Your task to perform on an android device: Open Chrome and go to the settings page Image 0: 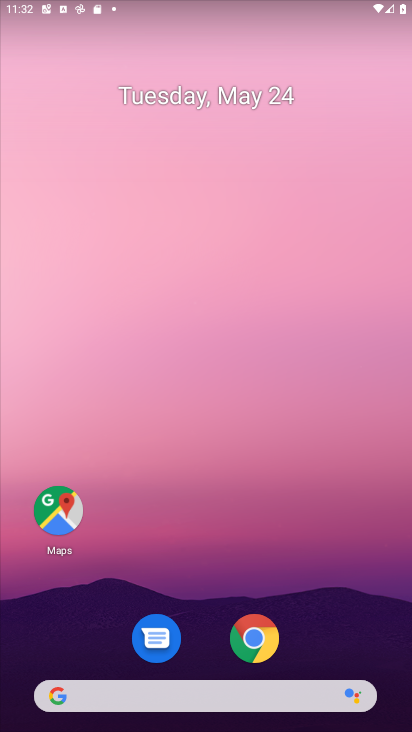
Step 0: click (268, 639)
Your task to perform on an android device: Open Chrome and go to the settings page Image 1: 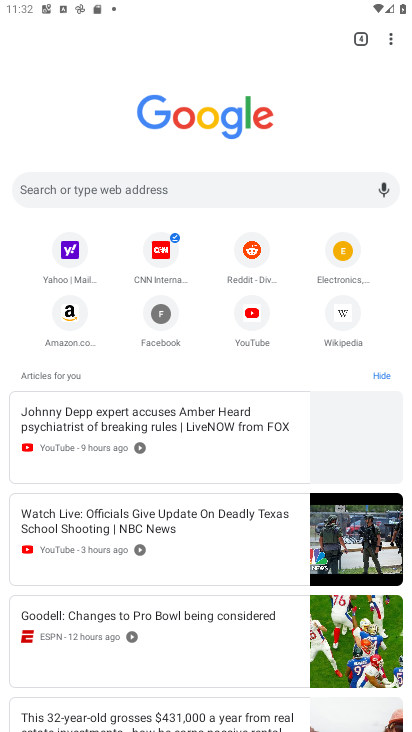
Step 1: click (393, 39)
Your task to perform on an android device: Open Chrome and go to the settings page Image 2: 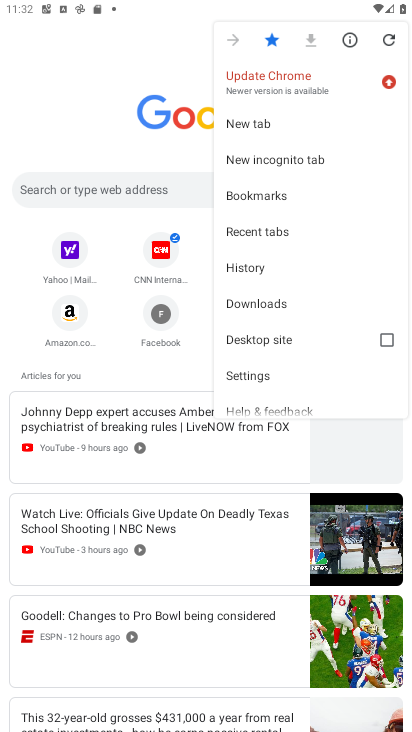
Step 2: click (267, 377)
Your task to perform on an android device: Open Chrome and go to the settings page Image 3: 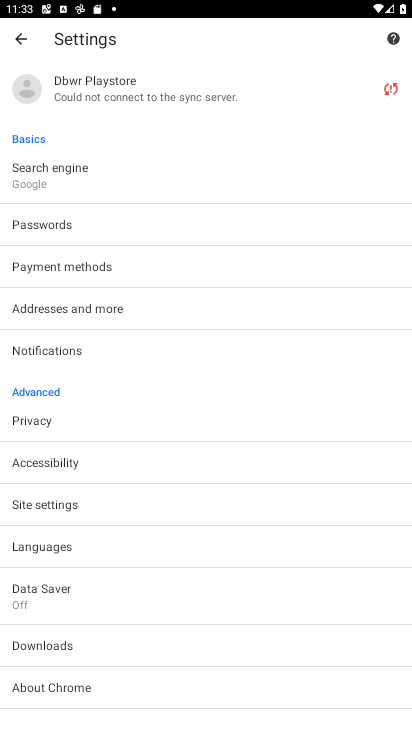
Step 3: task complete